Your task to perform on an android device: check storage Image 0: 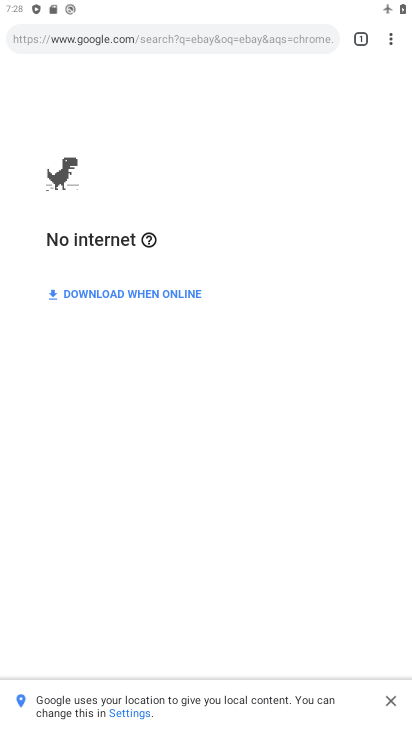
Step 0: press home button
Your task to perform on an android device: check storage Image 1: 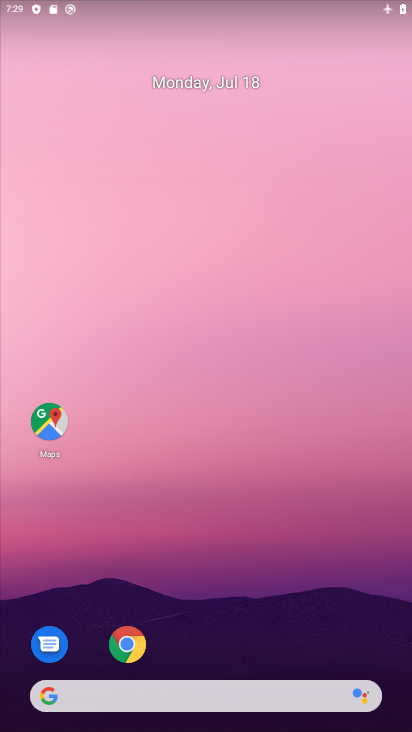
Step 1: drag from (309, 634) to (368, 86)
Your task to perform on an android device: check storage Image 2: 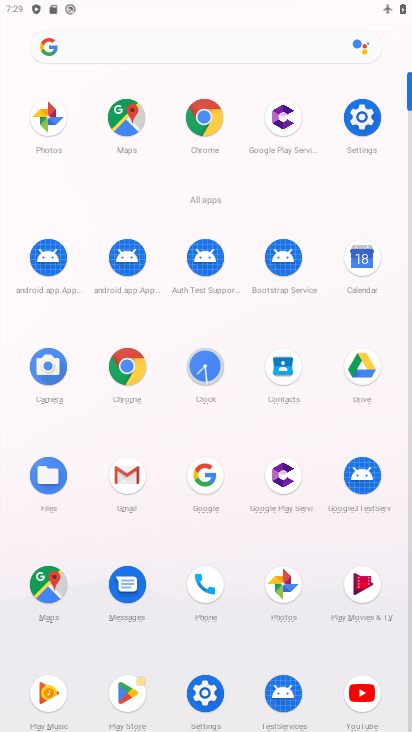
Step 2: click (368, 125)
Your task to perform on an android device: check storage Image 3: 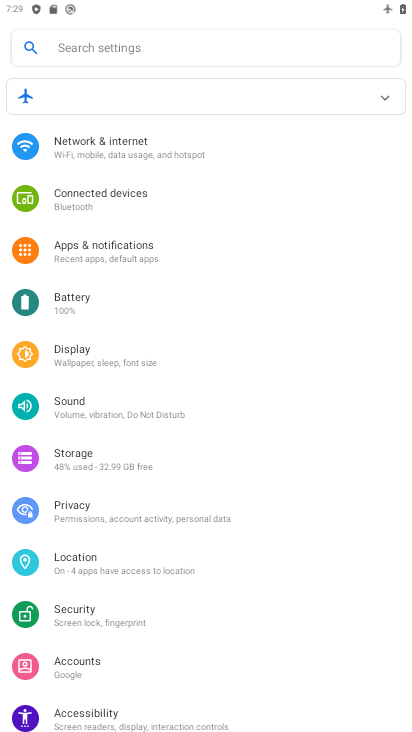
Step 3: drag from (351, 368) to (348, 314)
Your task to perform on an android device: check storage Image 4: 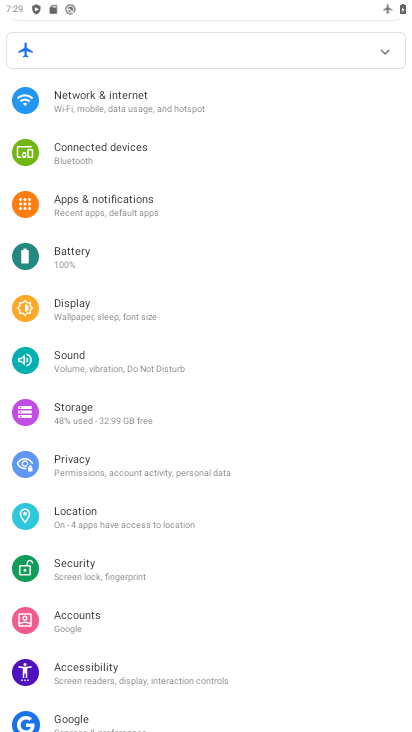
Step 4: drag from (346, 379) to (346, 315)
Your task to perform on an android device: check storage Image 5: 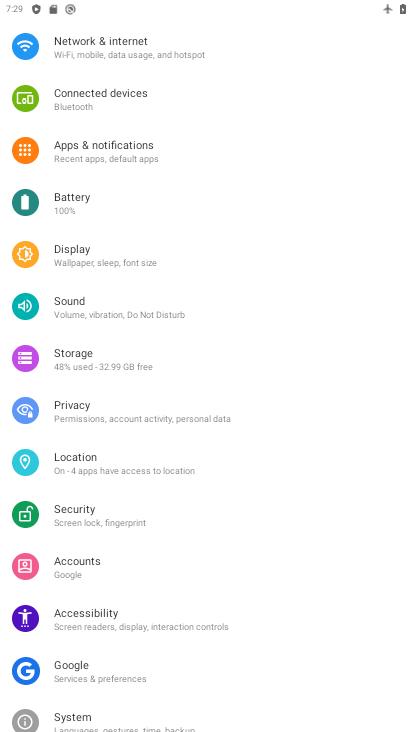
Step 5: drag from (342, 384) to (347, 311)
Your task to perform on an android device: check storage Image 6: 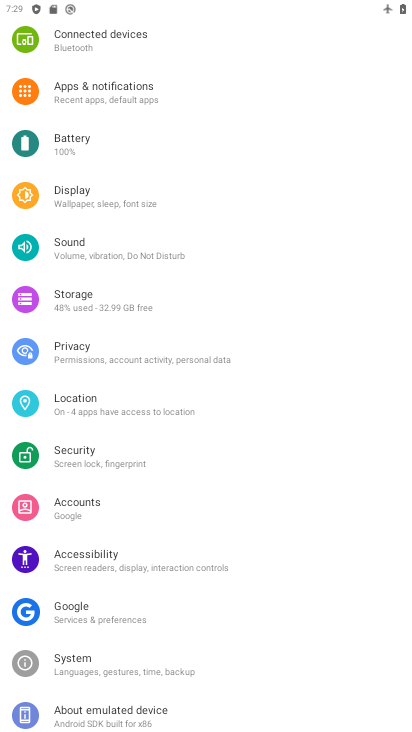
Step 6: drag from (332, 388) to (339, 280)
Your task to perform on an android device: check storage Image 7: 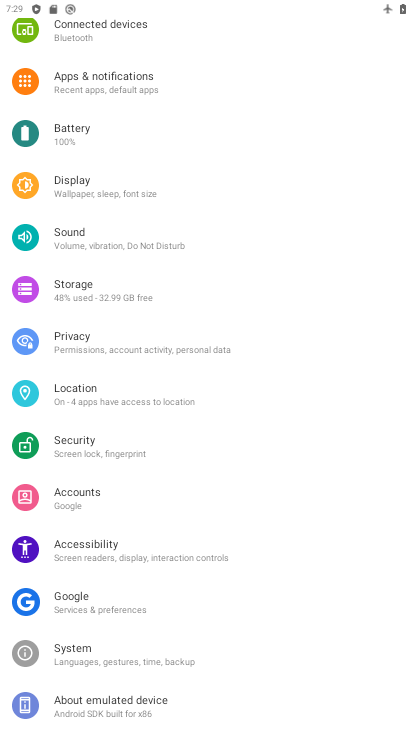
Step 7: click (213, 292)
Your task to perform on an android device: check storage Image 8: 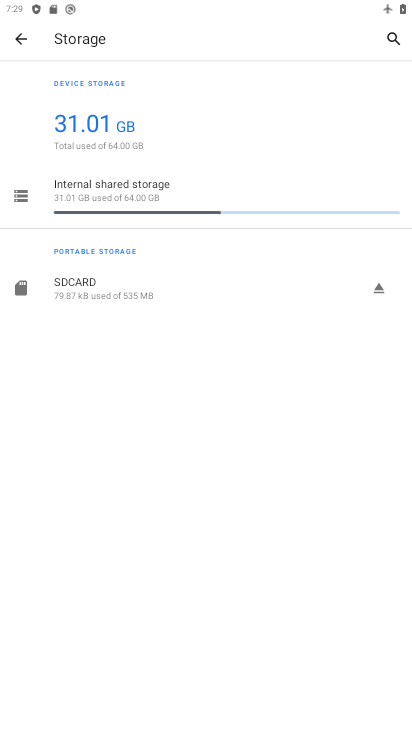
Step 8: task complete